Your task to perform on an android device: turn notification dots on Image 0: 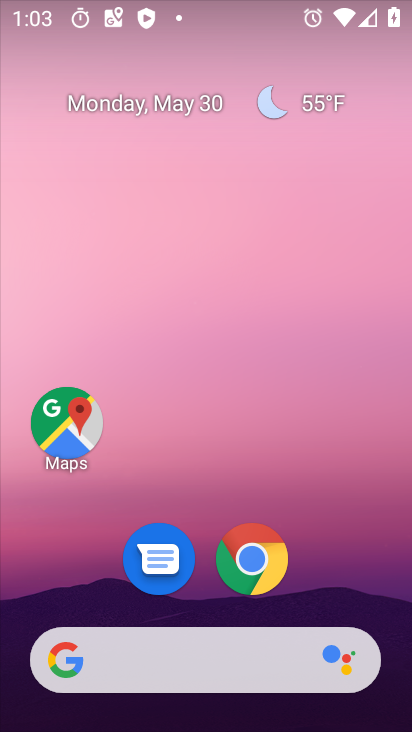
Step 0: drag from (223, 441) to (246, 13)
Your task to perform on an android device: turn notification dots on Image 1: 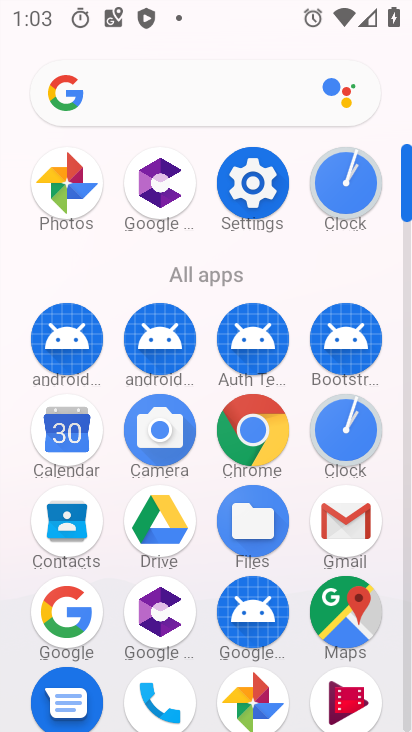
Step 1: click (256, 204)
Your task to perform on an android device: turn notification dots on Image 2: 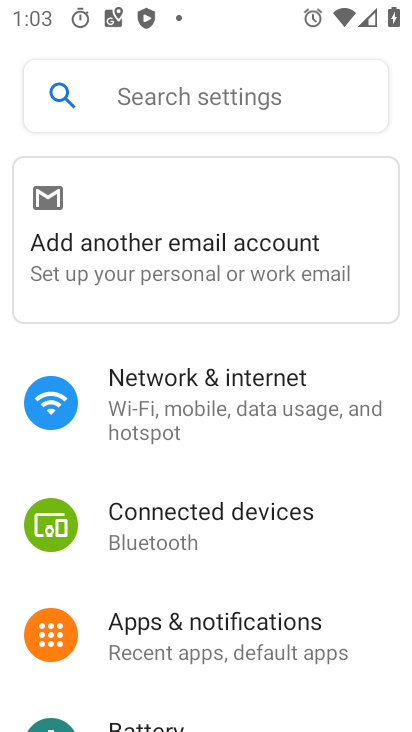
Step 2: click (178, 629)
Your task to perform on an android device: turn notification dots on Image 3: 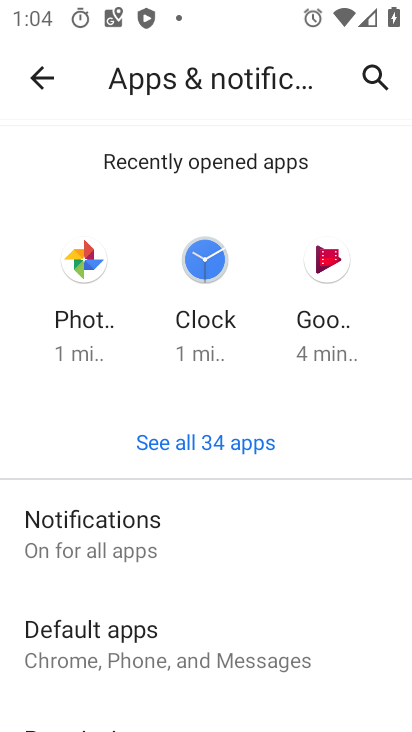
Step 3: click (158, 538)
Your task to perform on an android device: turn notification dots on Image 4: 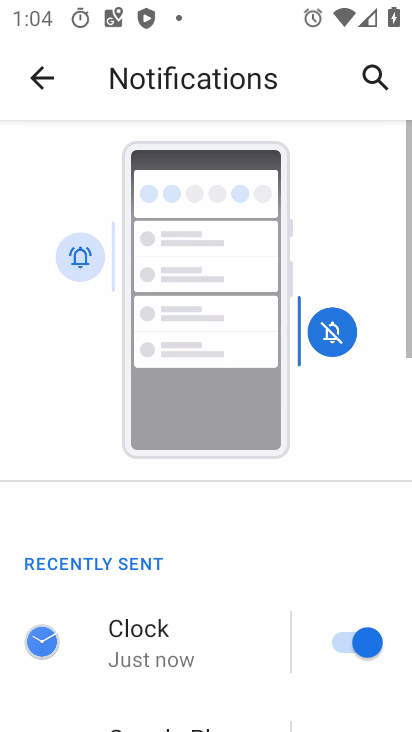
Step 4: drag from (148, 649) to (272, 153)
Your task to perform on an android device: turn notification dots on Image 5: 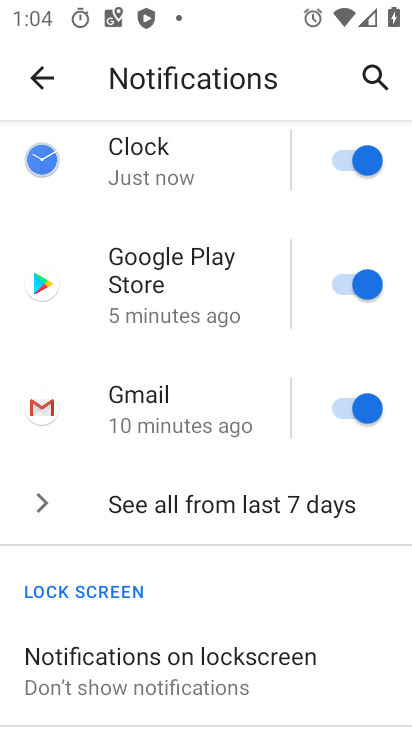
Step 5: drag from (204, 644) to (263, 197)
Your task to perform on an android device: turn notification dots on Image 6: 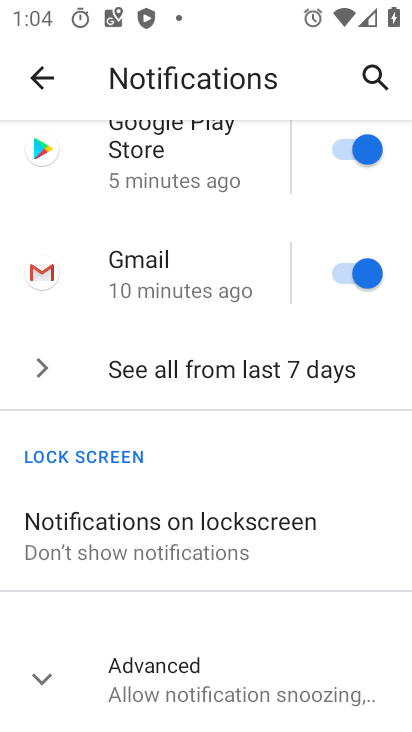
Step 6: drag from (169, 662) to (249, 165)
Your task to perform on an android device: turn notification dots on Image 7: 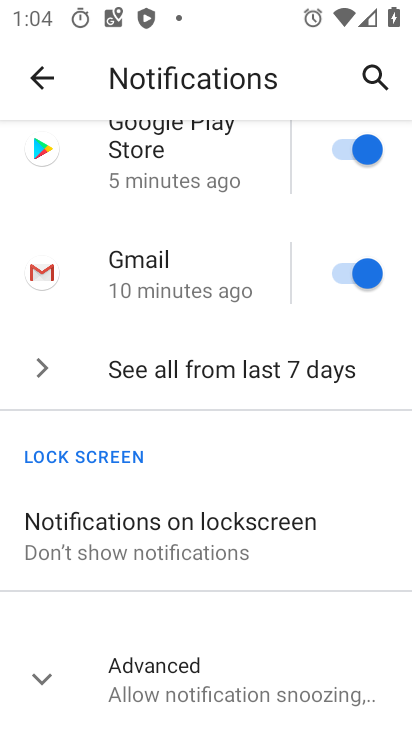
Step 7: click (181, 678)
Your task to perform on an android device: turn notification dots on Image 8: 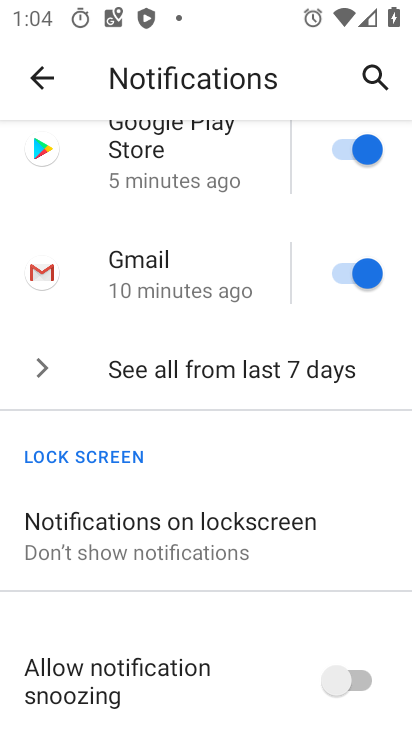
Step 8: task complete